Your task to perform on an android device: Open notification settings Image 0: 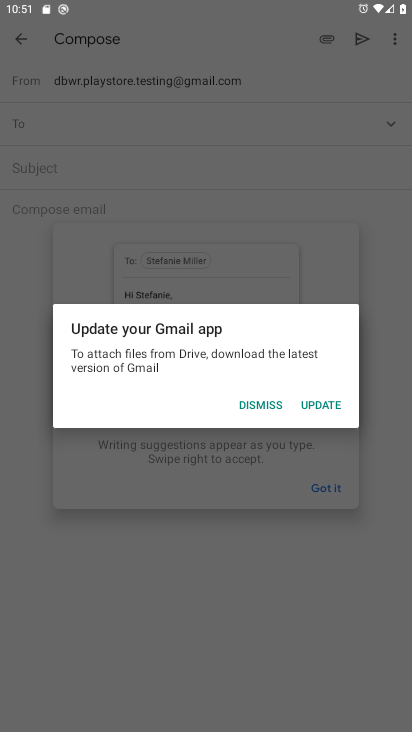
Step 0: press home button
Your task to perform on an android device: Open notification settings Image 1: 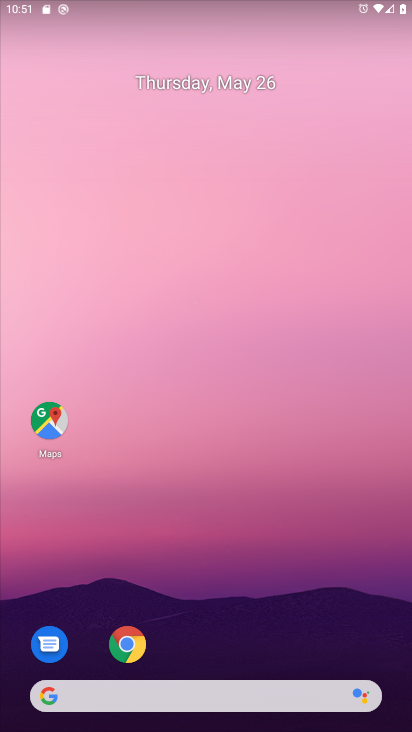
Step 1: drag from (351, 642) to (336, 169)
Your task to perform on an android device: Open notification settings Image 2: 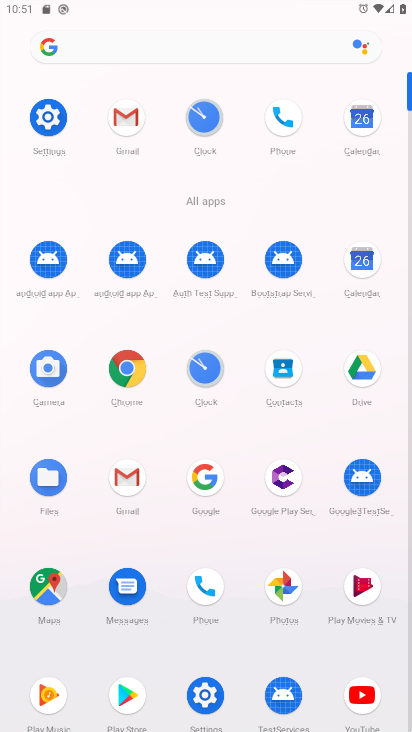
Step 2: click (46, 124)
Your task to perform on an android device: Open notification settings Image 3: 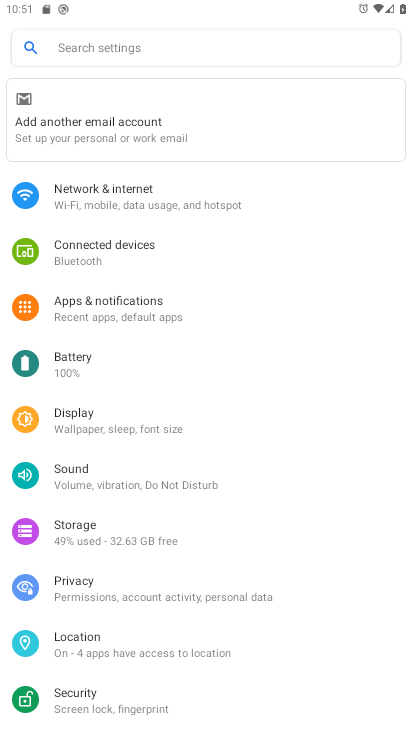
Step 3: drag from (346, 449) to (339, 333)
Your task to perform on an android device: Open notification settings Image 4: 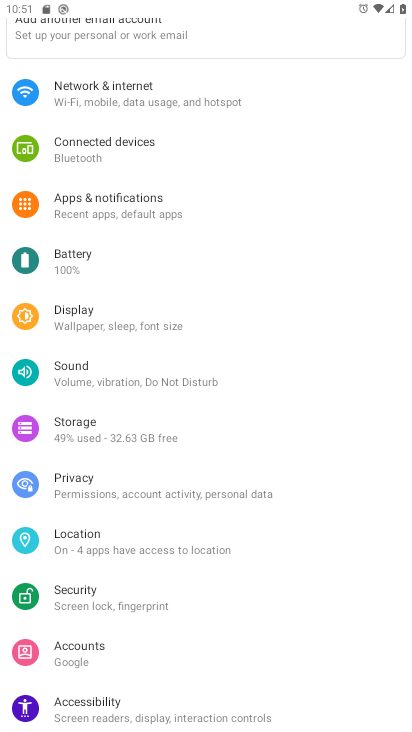
Step 4: drag from (343, 492) to (335, 378)
Your task to perform on an android device: Open notification settings Image 5: 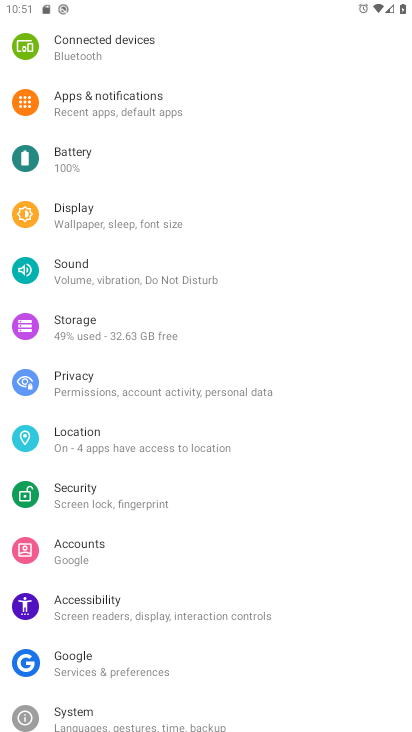
Step 5: drag from (344, 518) to (336, 373)
Your task to perform on an android device: Open notification settings Image 6: 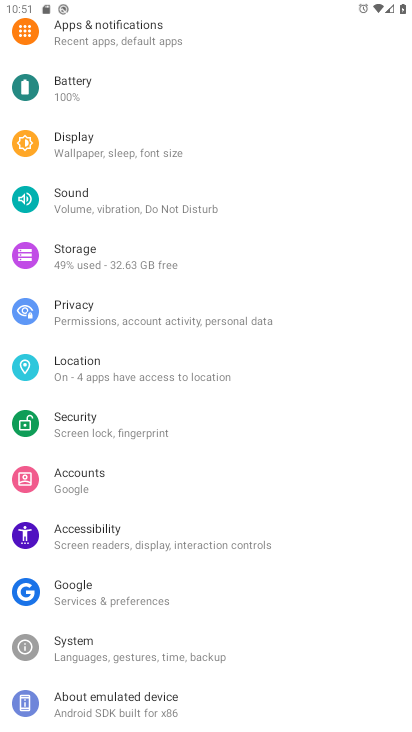
Step 6: drag from (337, 524) to (336, 365)
Your task to perform on an android device: Open notification settings Image 7: 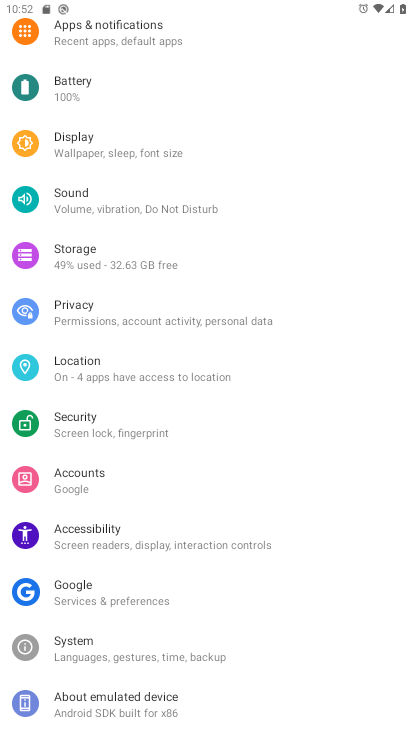
Step 7: drag from (315, 557) to (313, 336)
Your task to perform on an android device: Open notification settings Image 8: 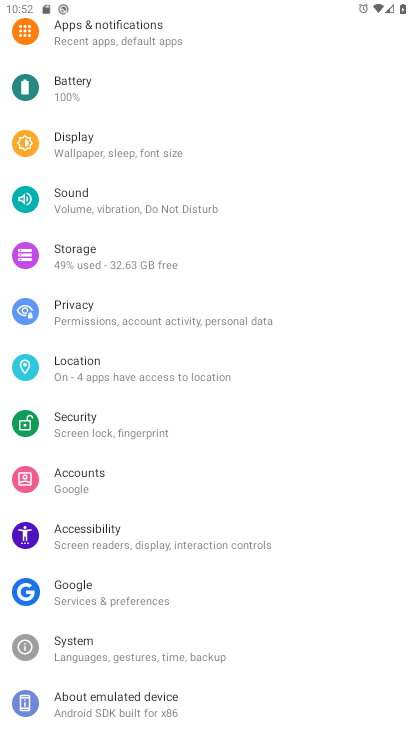
Step 8: drag from (336, 291) to (336, 413)
Your task to perform on an android device: Open notification settings Image 9: 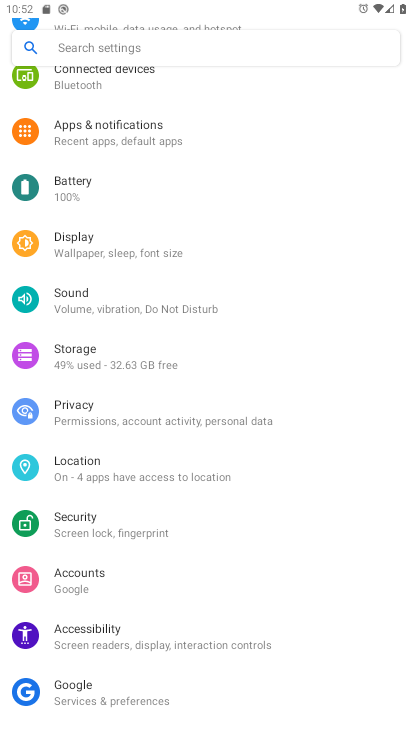
Step 9: drag from (336, 271) to (321, 466)
Your task to perform on an android device: Open notification settings Image 10: 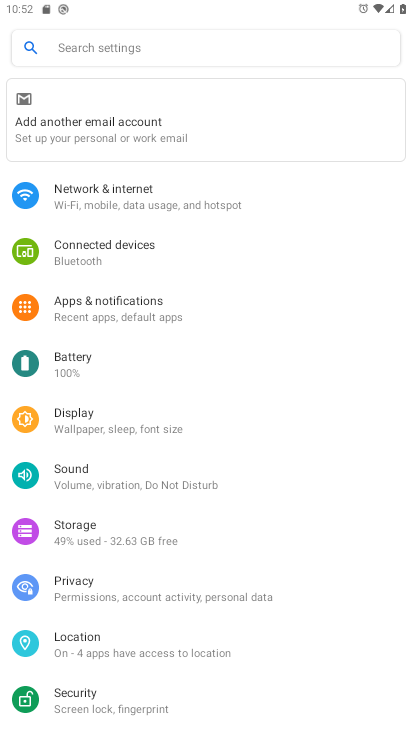
Step 10: drag from (308, 249) to (303, 406)
Your task to perform on an android device: Open notification settings Image 11: 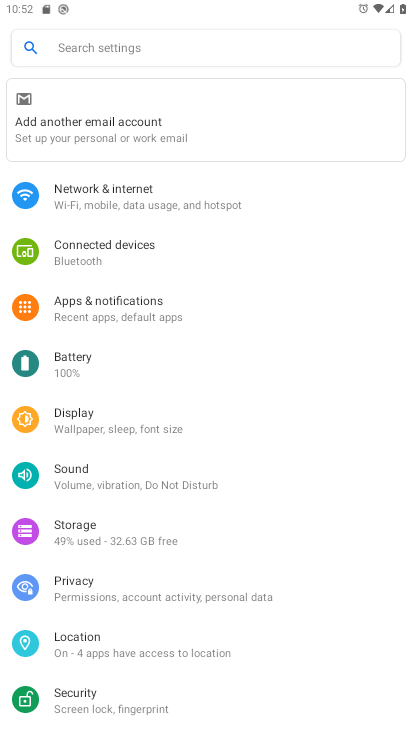
Step 11: click (113, 319)
Your task to perform on an android device: Open notification settings Image 12: 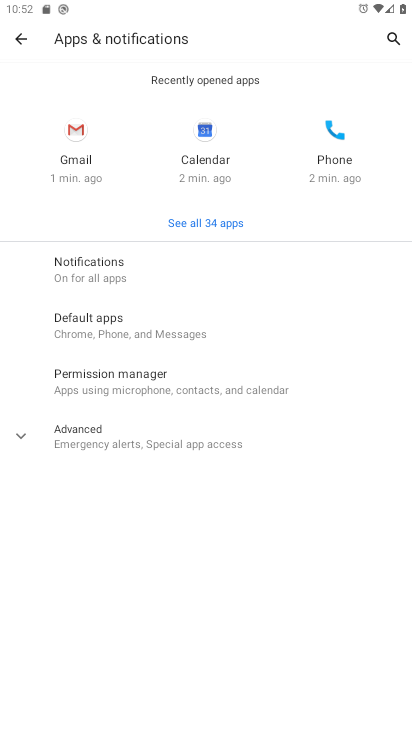
Step 12: click (101, 274)
Your task to perform on an android device: Open notification settings Image 13: 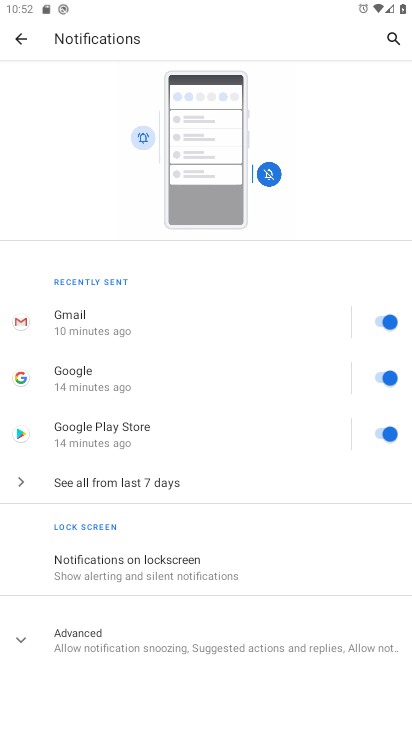
Step 13: task complete